Your task to perform on an android device: Open Google Maps and go to "Timeline" Image 0: 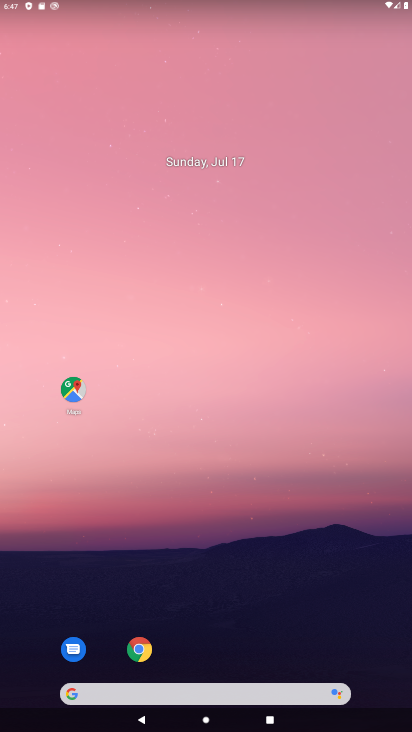
Step 0: click (70, 378)
Your task to perform on an android device: Open Google Maps and go to "Timeline" Image 1: 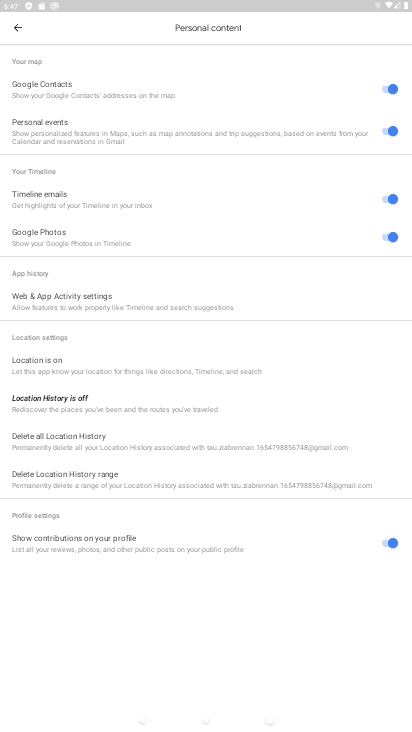
Step 1: click (16, 26)
Your task to perform on an android device: Open Google Maps and go to "Timeline" Image 2: 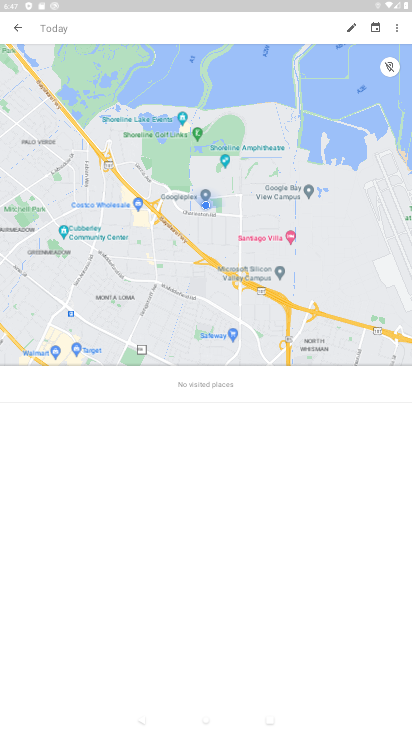
Step 2: click (18, 27)
Your task to perform on an android device: Open Google Maps and go to "Timeline" Image 3: 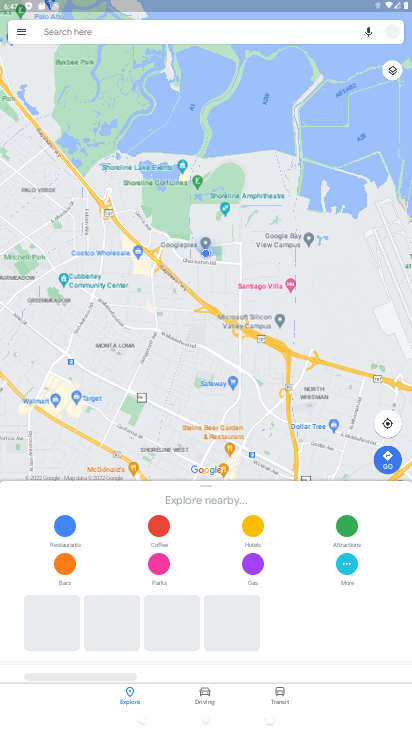
Step 3: click (19, 32)
Your task to perform on an android device: Open Google Maps and go to "Timeline" Image 4: 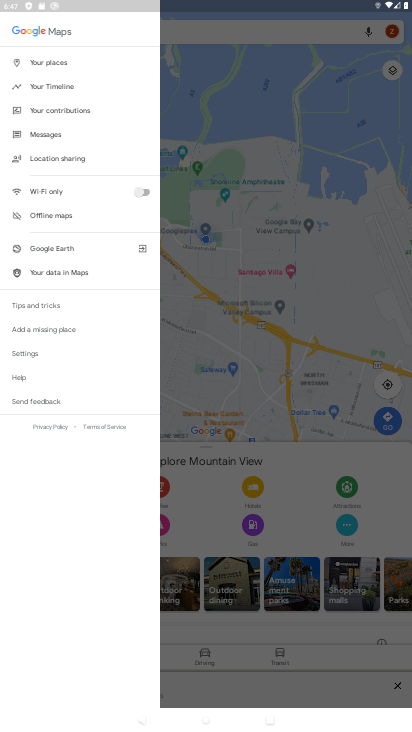
Step 4: click (56, 81)
Your task to perform on an android device: Open Google Maps and go to "Timeline" Image 5: 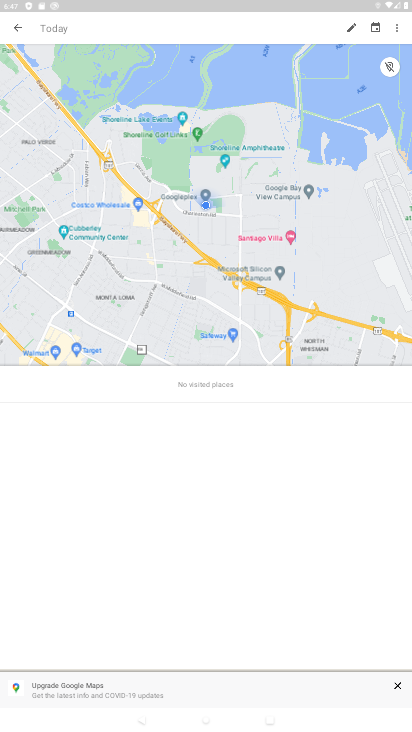
Step 5: task complete